Your task to perform on an android device: Go to internet settings Image 0: 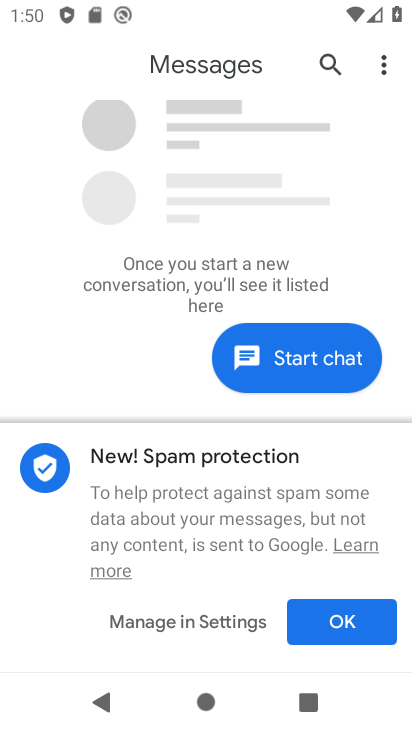
Step 0: press home button
Your task to perform on an android device: Go to internet settings Image 1: 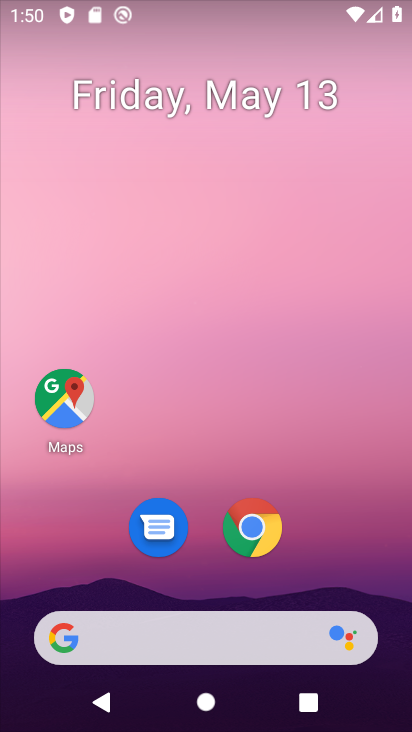
Step 1: drag from (347, 560) to (336, 131)
Your task to perform on an android device: Go to internet settings Image 2: 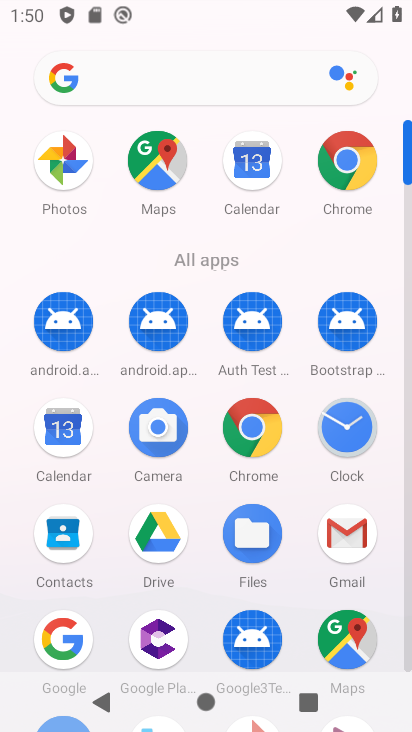
Step 2: drag from (294, 563) to (296, 293)
Your task to perform on an android device: Go to internet settings Image 3: 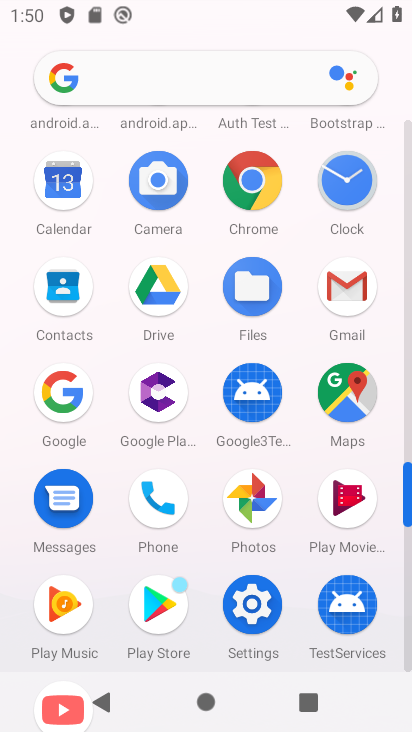
Step 3: click (244, 610)
Your task to perform on an android device: Go to internet settings Image 4: 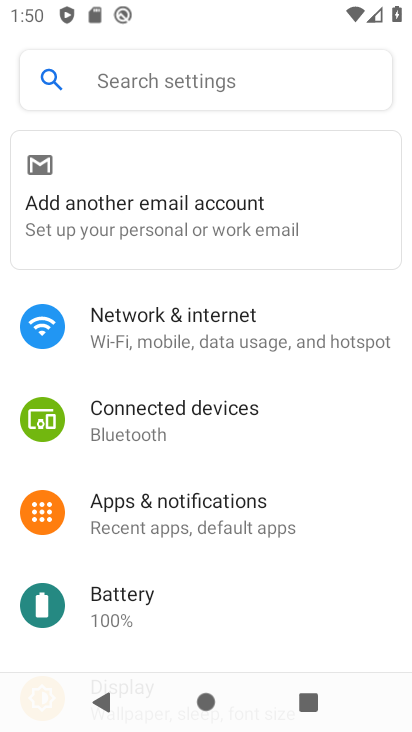
Step 4: click (261, 312)
Your task to perform on an android device: Go to internet settings Image 5: 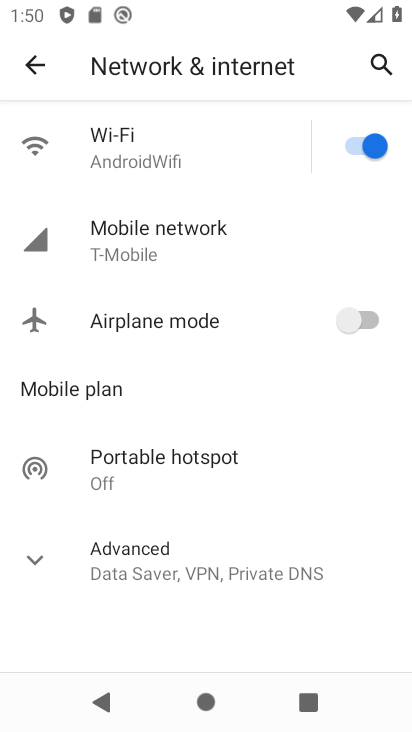
Step 5: click (188, 235)
Your task to perform on an android device: Go to internet settings Image 6: 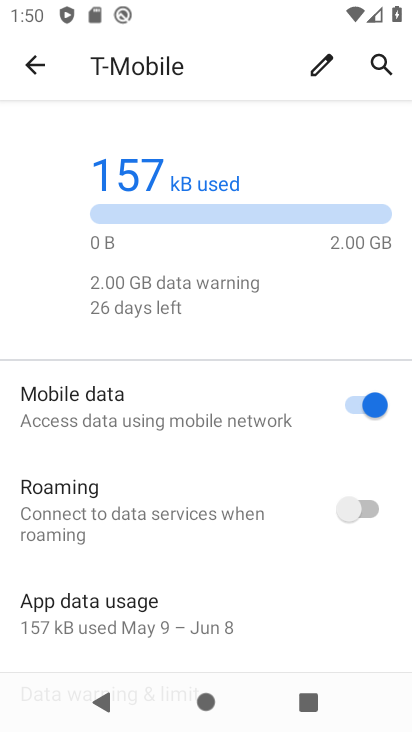
Step 6: task complete